Your task to perform on an android device: What is the news today? Image 0: 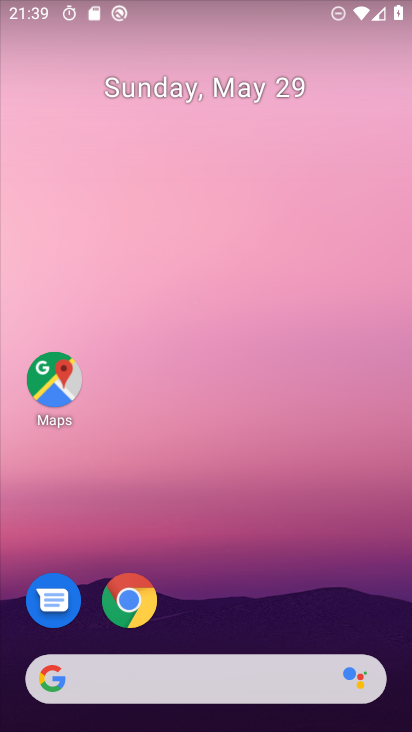
Step 0: drag from (317, 609) to (307, 237)
Your task to perform on an android device: What is the news today? Image 1: 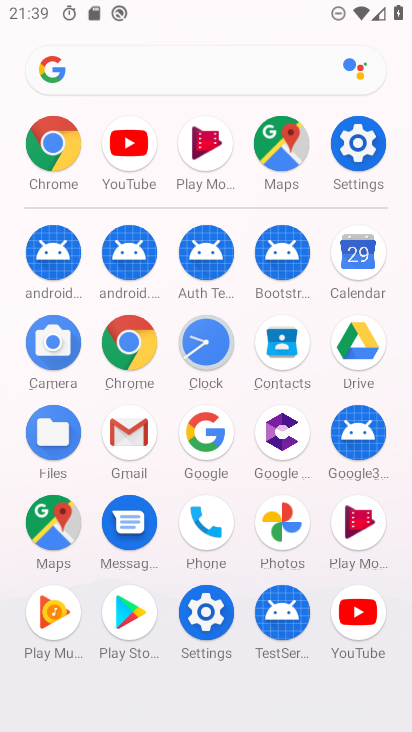
Step 1: click (108, 339)
Your task to perform on an android device: What is the news today? Image 2: 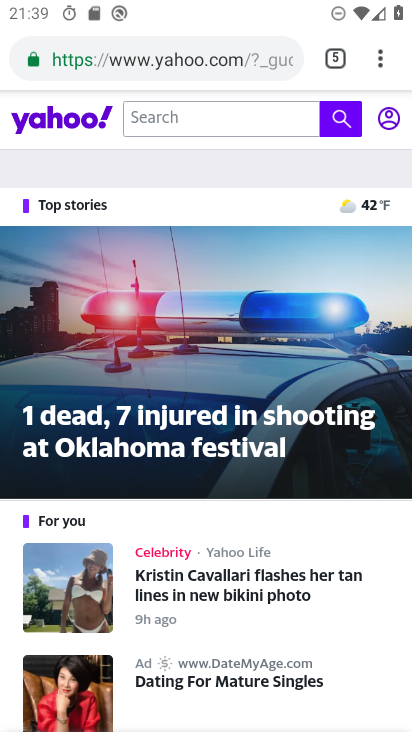
Step 2: click (218, 66)
Your task to perform on an android device: What is the news today? Image 3: 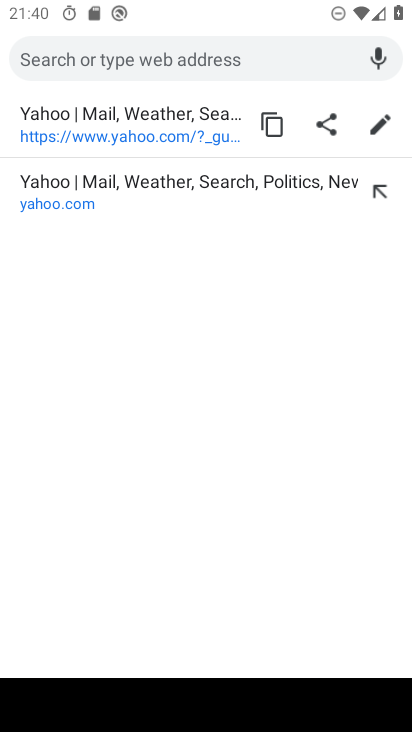
Step 3: type "what is the news today"
Your task to perform on an android device: What is the news today? Image 4: 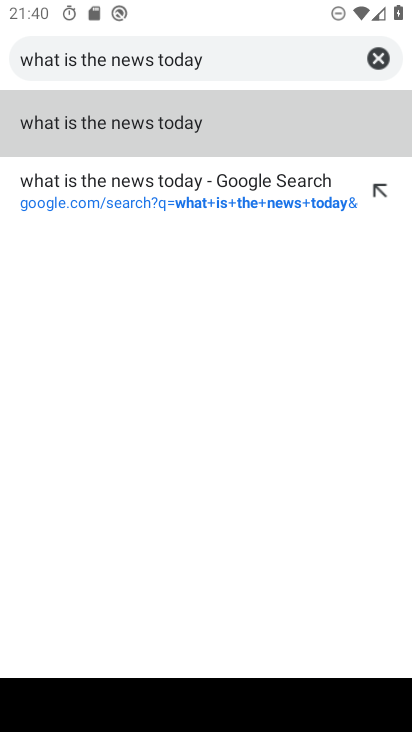
Step 4: click (249, 194)
Your task to perform on an android device: What is the news today? Image 5: 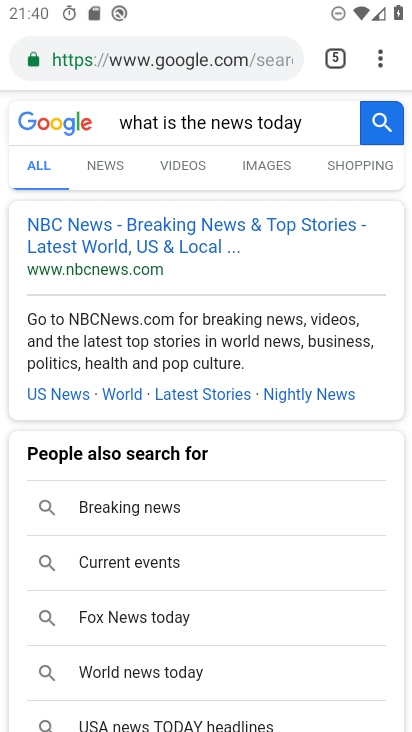
Step 5: click (210, 233)
Your task to perform on an android device: What is the news today? Image 6: 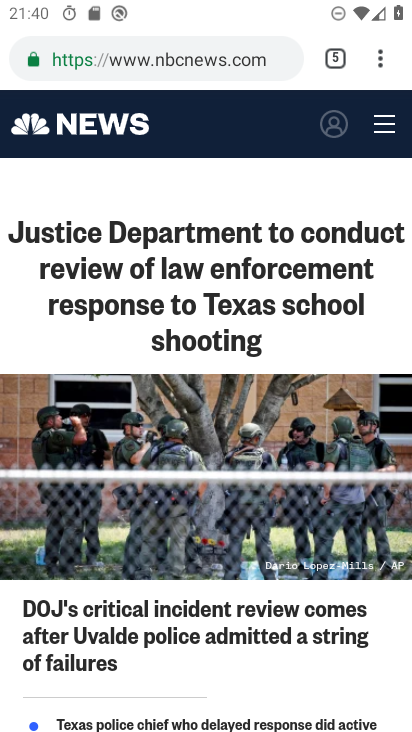
Step 6: task complete